Your task to perform on an android device: Find coffee shops on Maps Image 0: 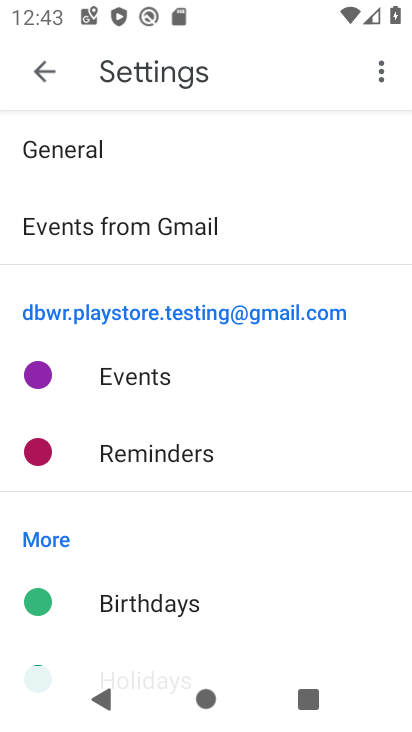
Step 0: press home button
Your task to perform on an android device: Find coffee shops on Maps Image 1: 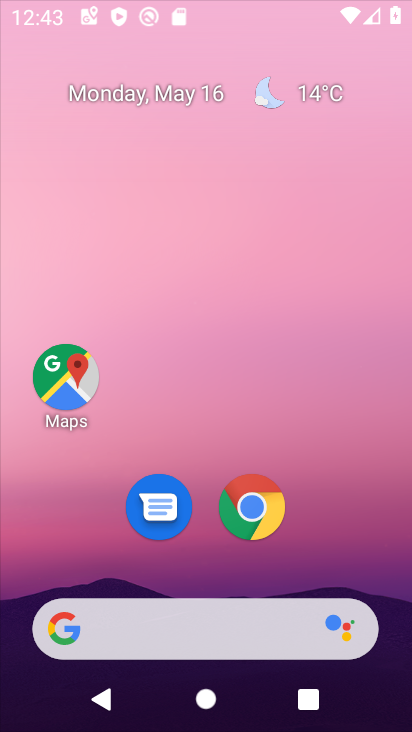
Step 1: drag from (340, 545) to (305, 133)
Your task to perform on an android device: Find coffee shops on Maps Image 2: 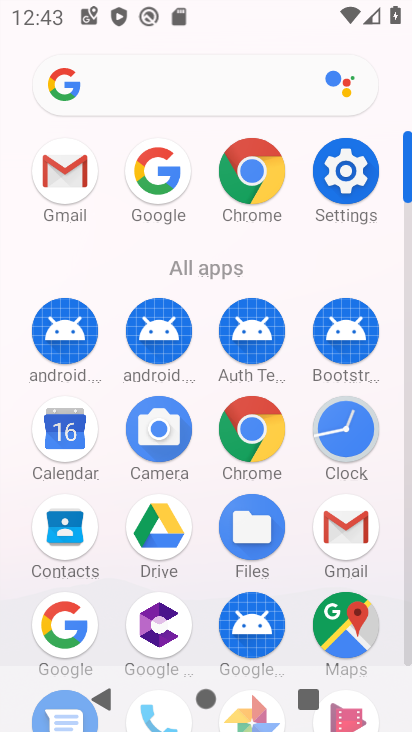
Step 2: click (364, 633)
Your task to perform on an android device: Find coffee shops on Maps Image 3: 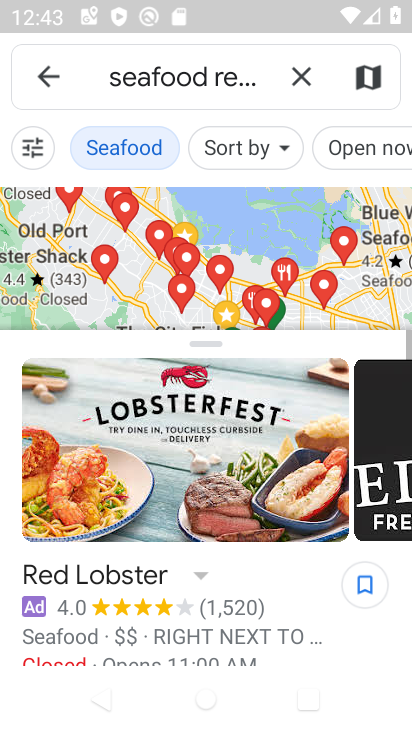
Step 3: click (292, 84)
Your task to perform on an android device: Find coffee shops on Maps Image 4: 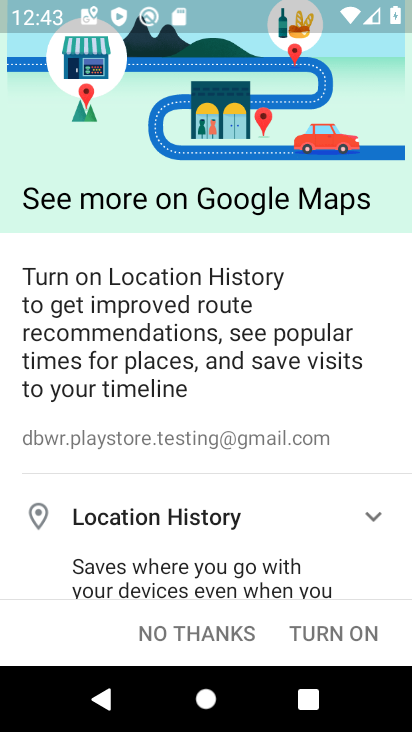
Step 4: click (220, 637)
Your task to perform on an android device: Find coffee shops on Maps Image 5: 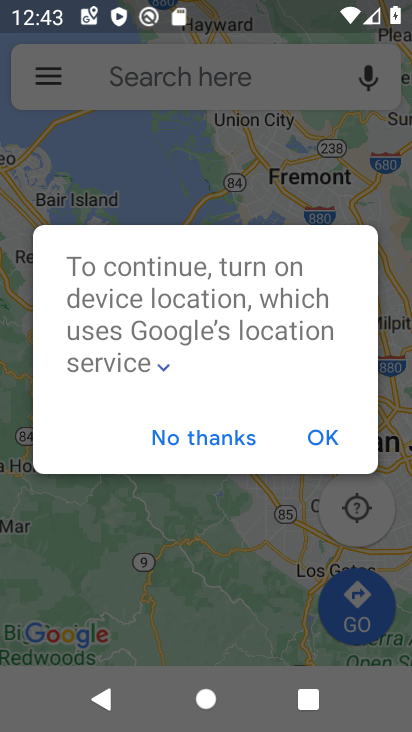
Step 5: click (320, 449)
Your task to perform on an android device: Find coffee shops on Maps Image 6: 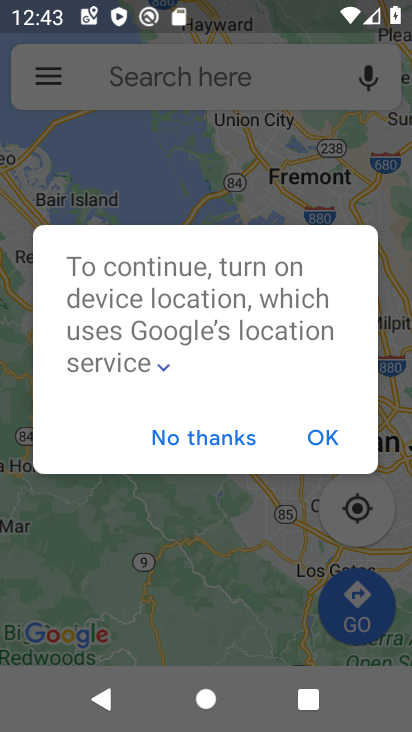
Step 6: click (321, 442)
Your task to perform on an android device: Find coffee shops on Maps Image 7: 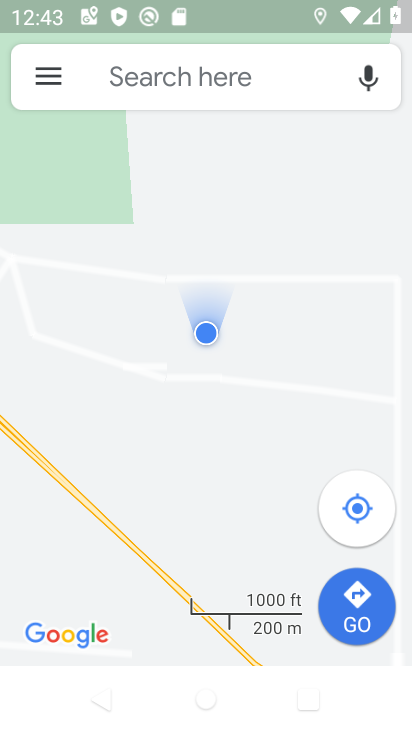
Step 7: click (211, 87)
Your task to perform on an android device: Find coffee shops on Maps Image 8: 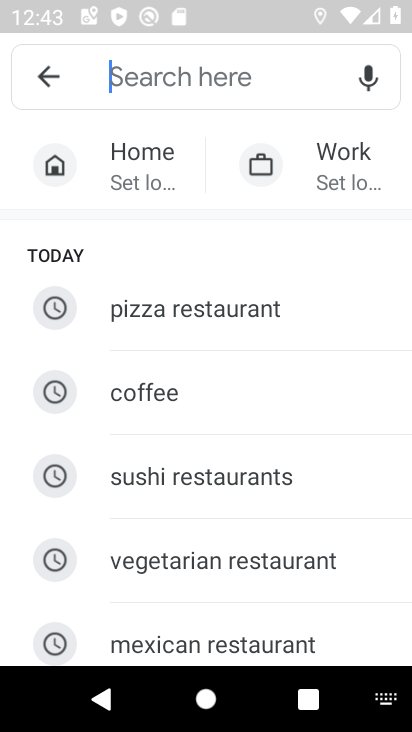
Step 8: type "coffee shops"
Your task to perform on an android device: Find coffee shops on Maps Image 9: 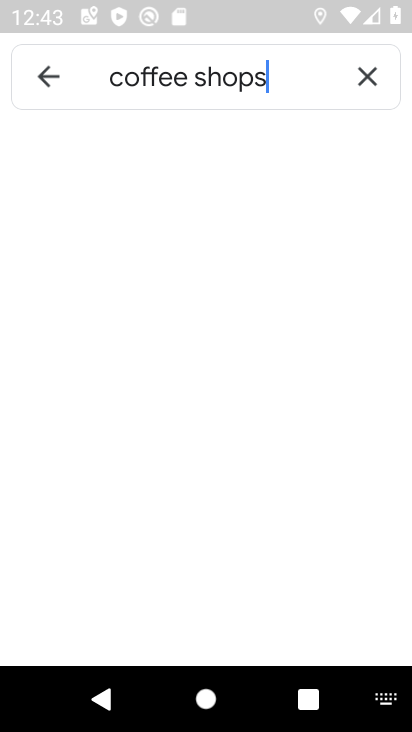
Step 9: type ""
Your task to perform on an android device: Find coffee shops on Maps Image 10: 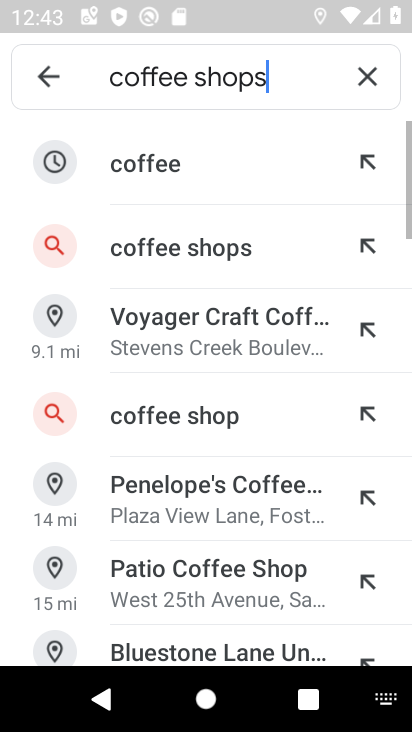
Step 10: click (252, 246)
Your task to perform on an android device: Find coffee shops on Maps Image 11: 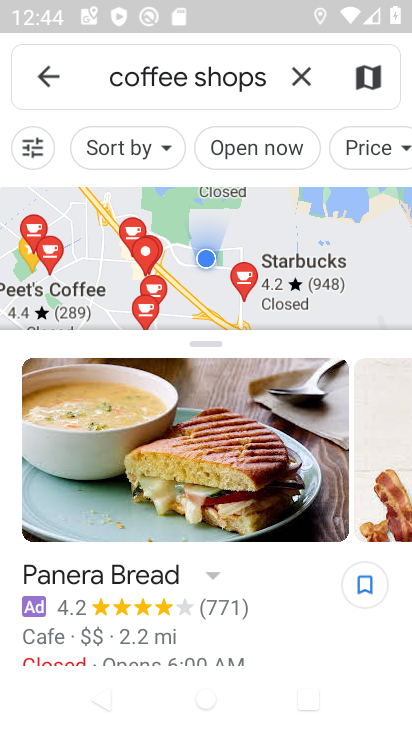
Step 11: task complete